Your task to perform on an android device: Open maps Image 0: 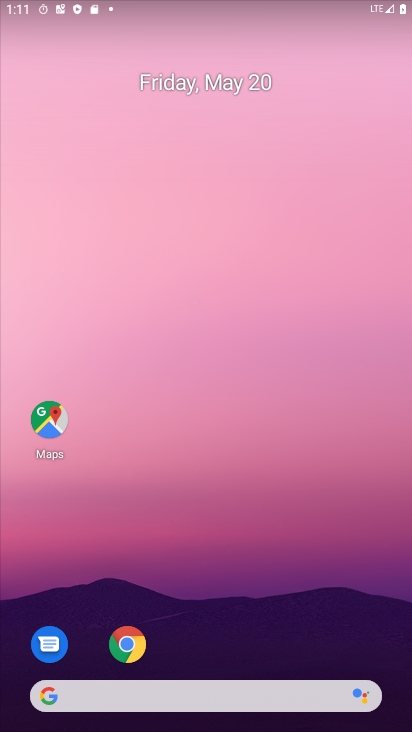
Step 0: drag from (236, 482) to (0, 17)
Your task to perform on an android device: Open maps Image 1: 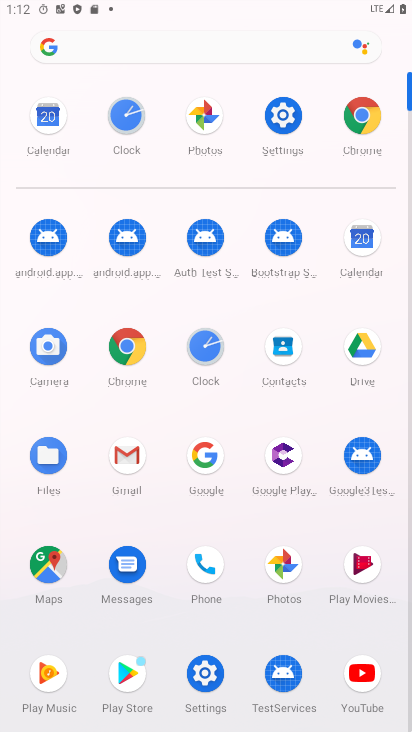
Step 1: click (35, 569)
Your task to perform on an android device: Open maps Image 2: 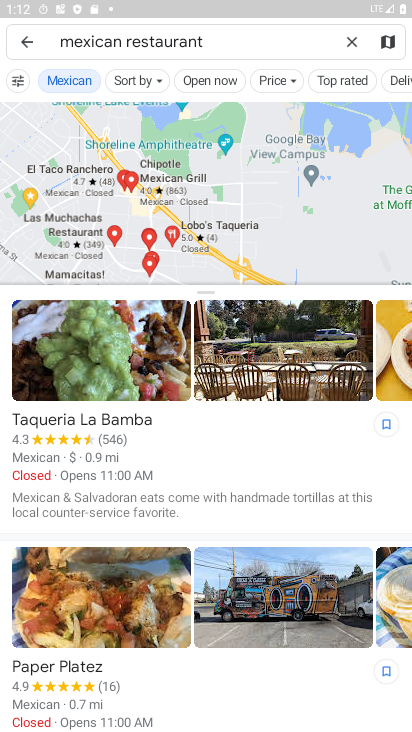
Step 2: task complete